Your task to perform on an android device: visit the assistant section in the google photos Image 0: 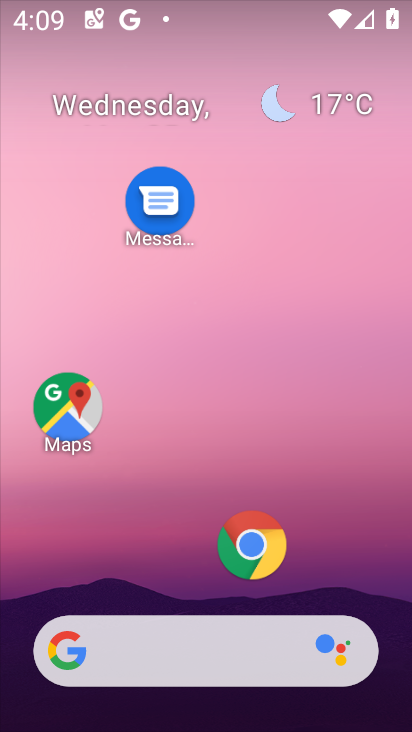
Step 0: drag from (318, 572) to (234, 42)
Your task to perform on an android device: visit the assistant section in the google photos Image 1: 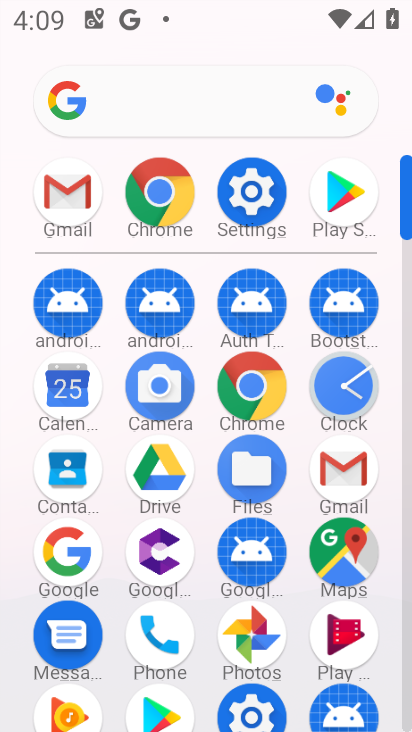
Step 1: click (248, 640)
Your task to perform on an android device: visit the assistant section in the google photos Image 2: 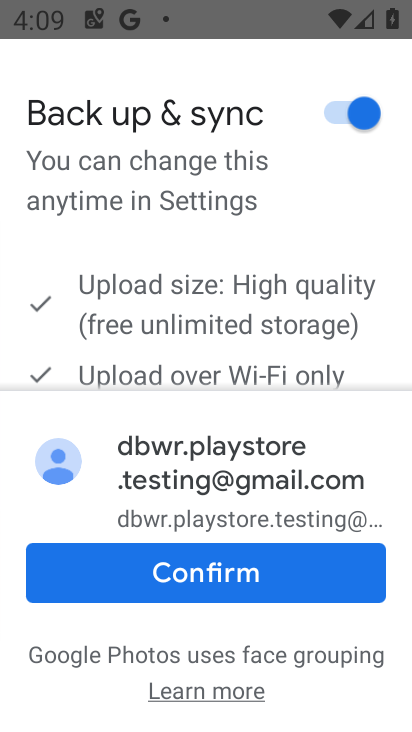
Step 2: click (297, 556)
Your task to perform on an android device: visit the assistant section in the google photos Image 3: 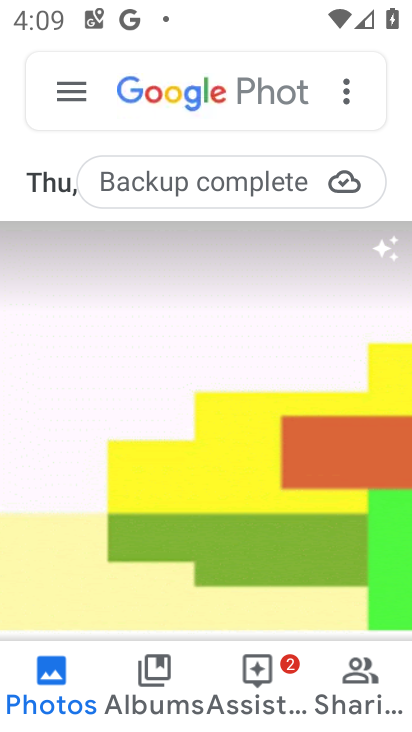
Step 3: click (260, 682)
Your task to perform on an android device: visit the assistant section in the google photos Image 4: 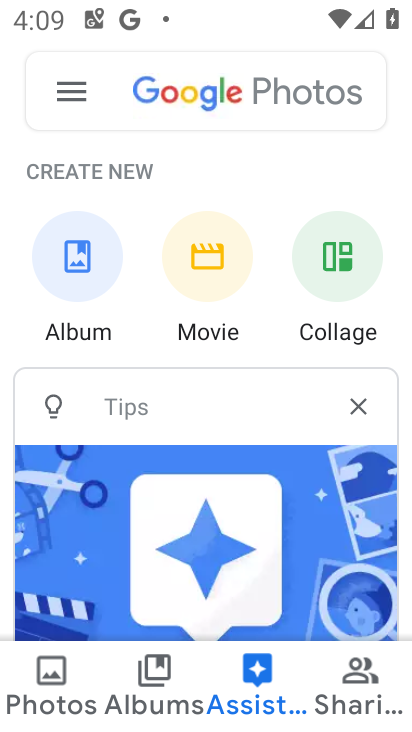
Step 4: task complete